Your task to perform on an android device: Clear the shopping cart on walmart.com. Search for acer predator on walmart.com, select the first entry, and add it to the cart. Image 0: 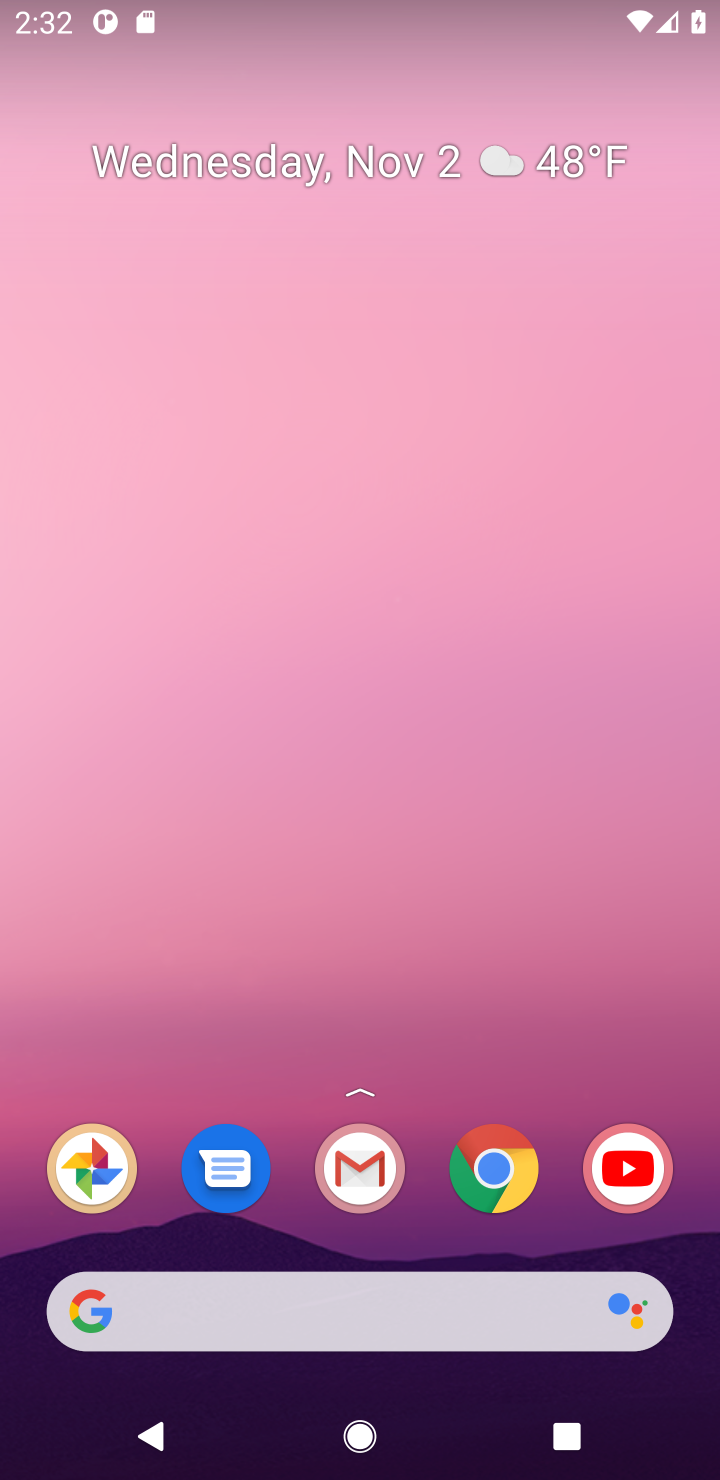
Step 0: click (437, 1319)
Your task to perform on an android device: Clear the shopping cart on walmart.com. Search for acer predator on walmart.com, select the first entry, and add it to the cart. Image 1: 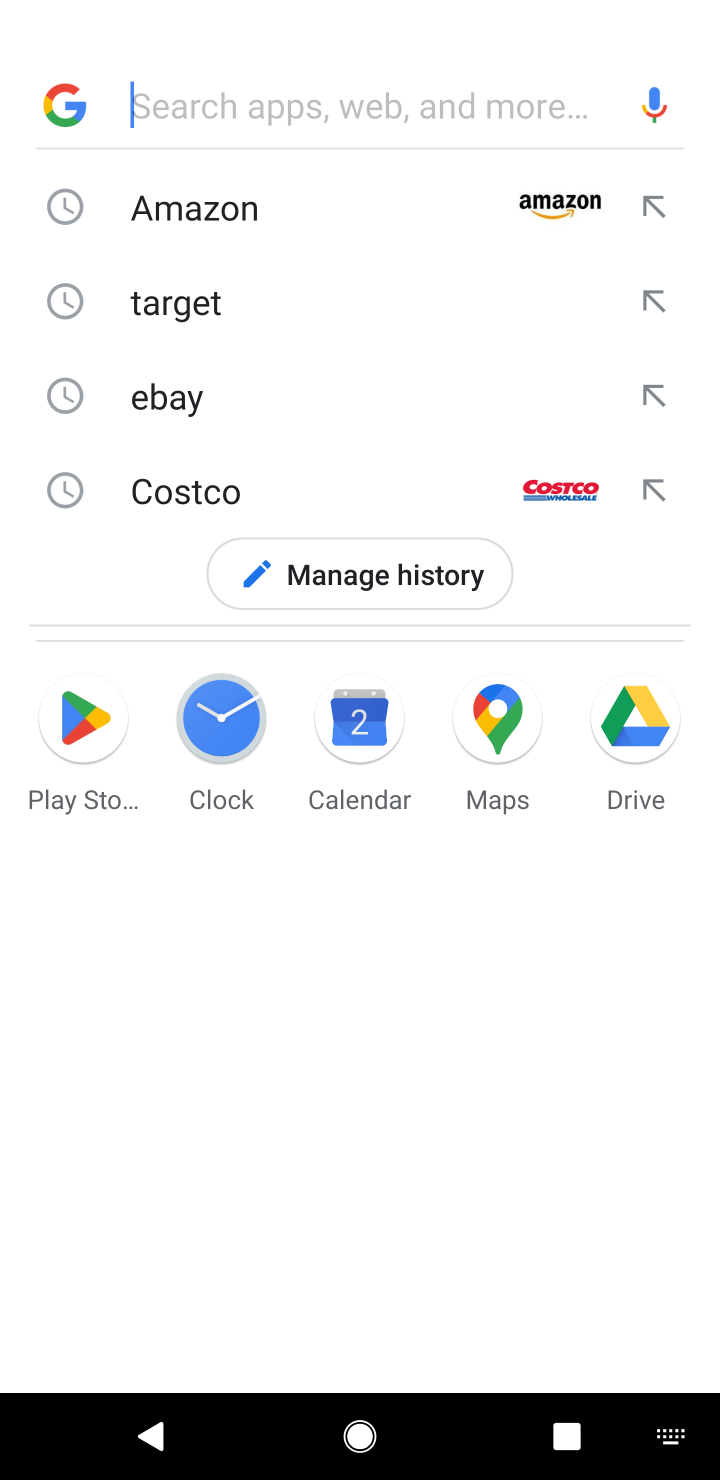
Step 1: type "walmart.com"
Your task to perform on an android device: Clear the shopping cart on walmart.com. Search for acer predator on walmart.com, select the first entry, and add it to the cart. Image 2: 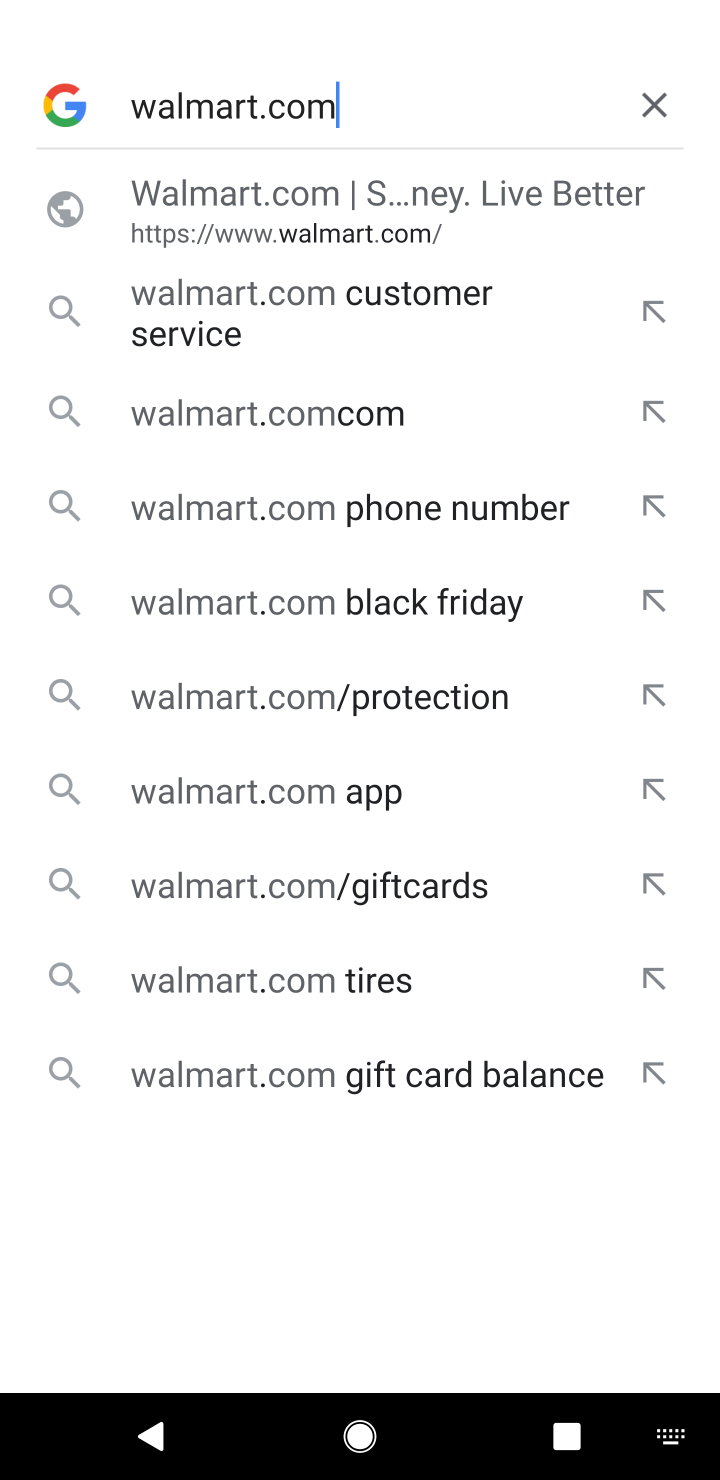
Step 2: click (379, 205)
Your task to perform on an android device: Clear the shopping cart on walmart.com. Search for acer predator on walmart.com, select the first entry, and add it to the cart. Image 3: 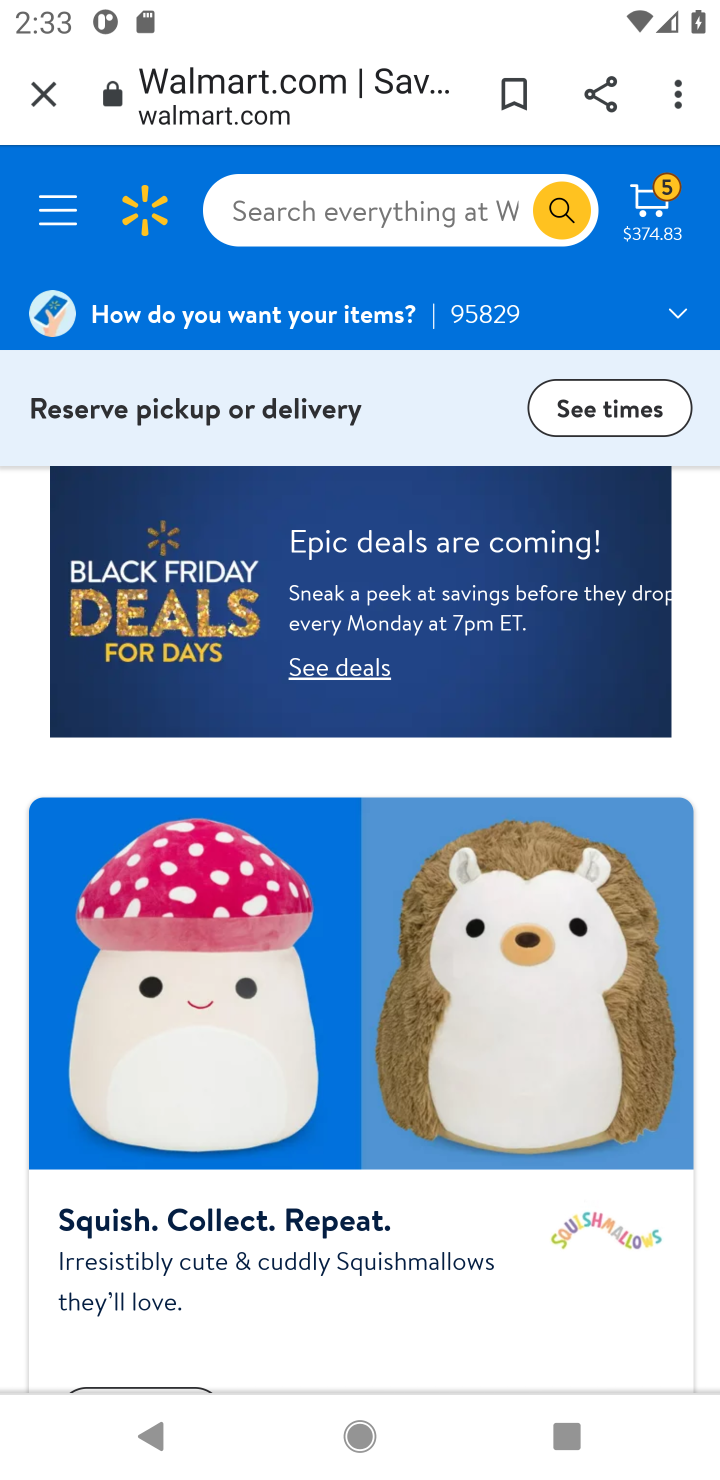
Step 3: click (653, 201)
Your task to perform on an android device: Clear the shopping cart on walmart.com. Search for acer predator on walmart.com, select the first entry, and add it to the cart. Image 4: 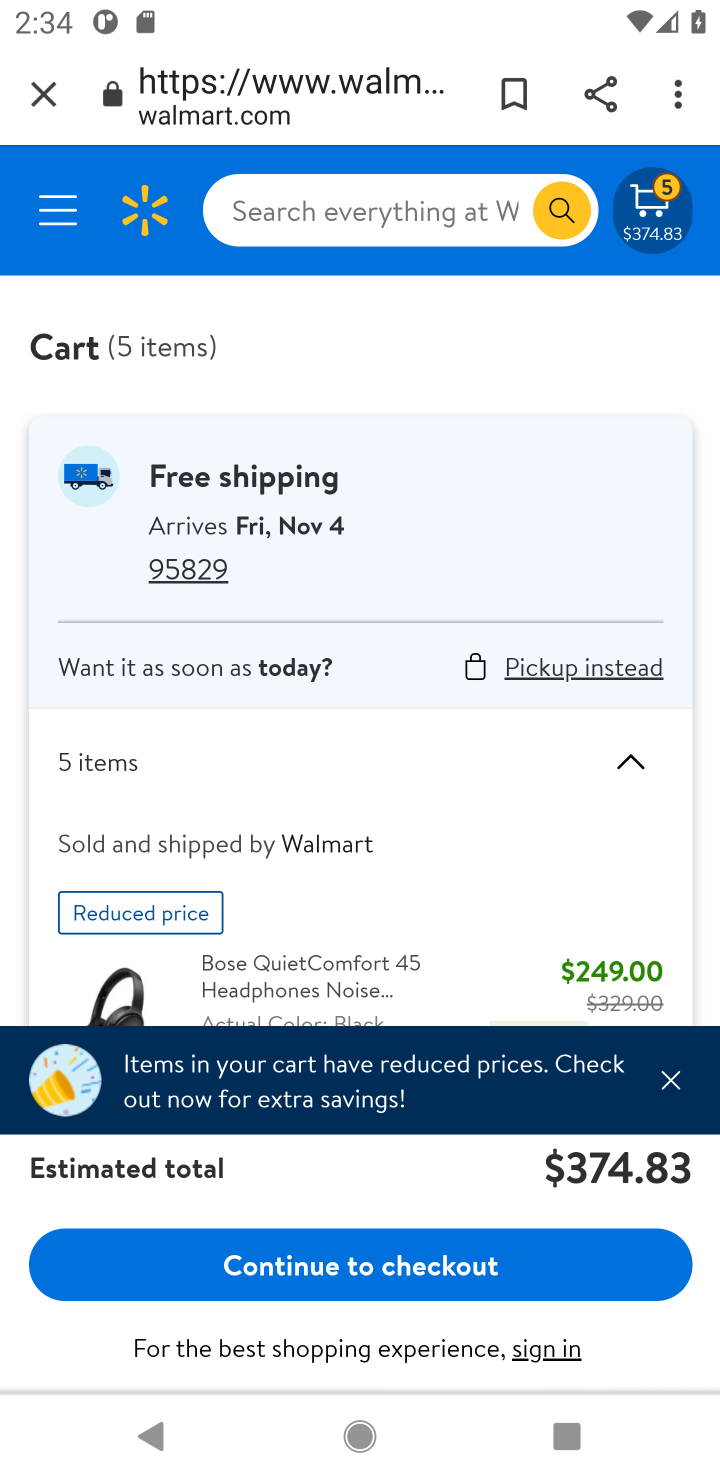
Step 4: click (673, 1087)
Your task to perform on an android device: Clear the shopping cart on walmart.com. Search for acer predator on walmart.com, select the first entry, and add it to the cart. Image 5: 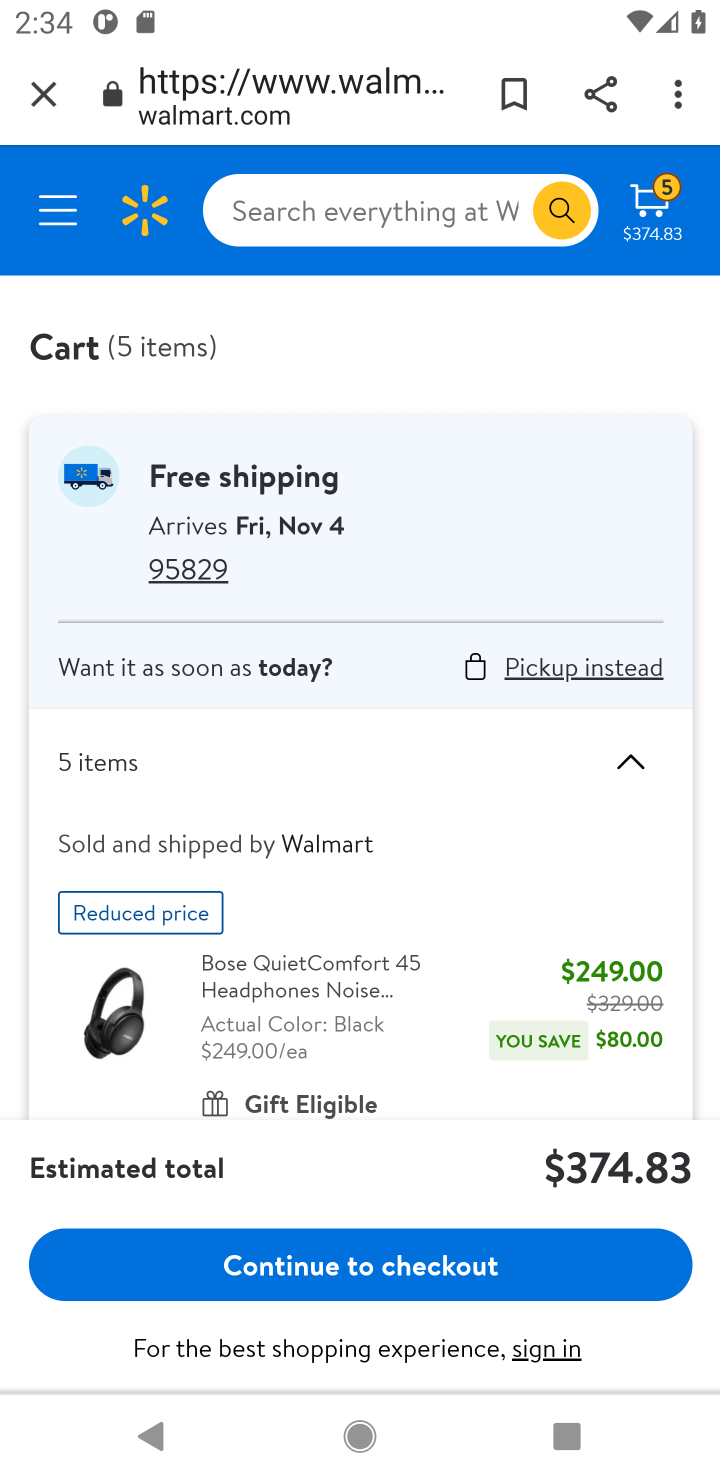
Step 5: drag from (255, 1068) to (290, 744)
Your task to perform on an android device: Clear the shopping cart on walmart.com. Search for acer predator on walmart.com, select the first entry, and add it to the cart. Image 6: 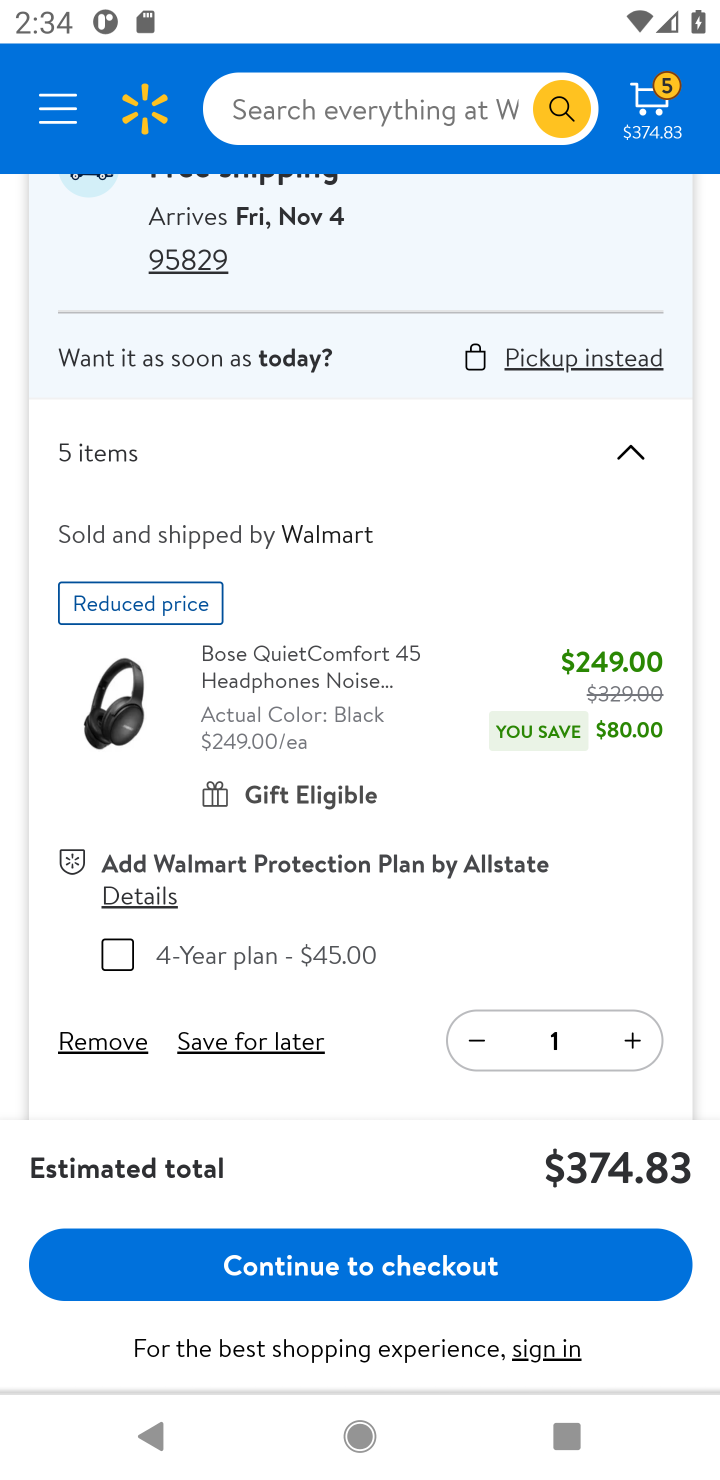
Step 6: click (91, 1051)
Your task to perform on an android device: Clear the shopping cart on walmart.com. Search for acer predator on walmart.com, select the first entry, and add it to the cart. Image 7: 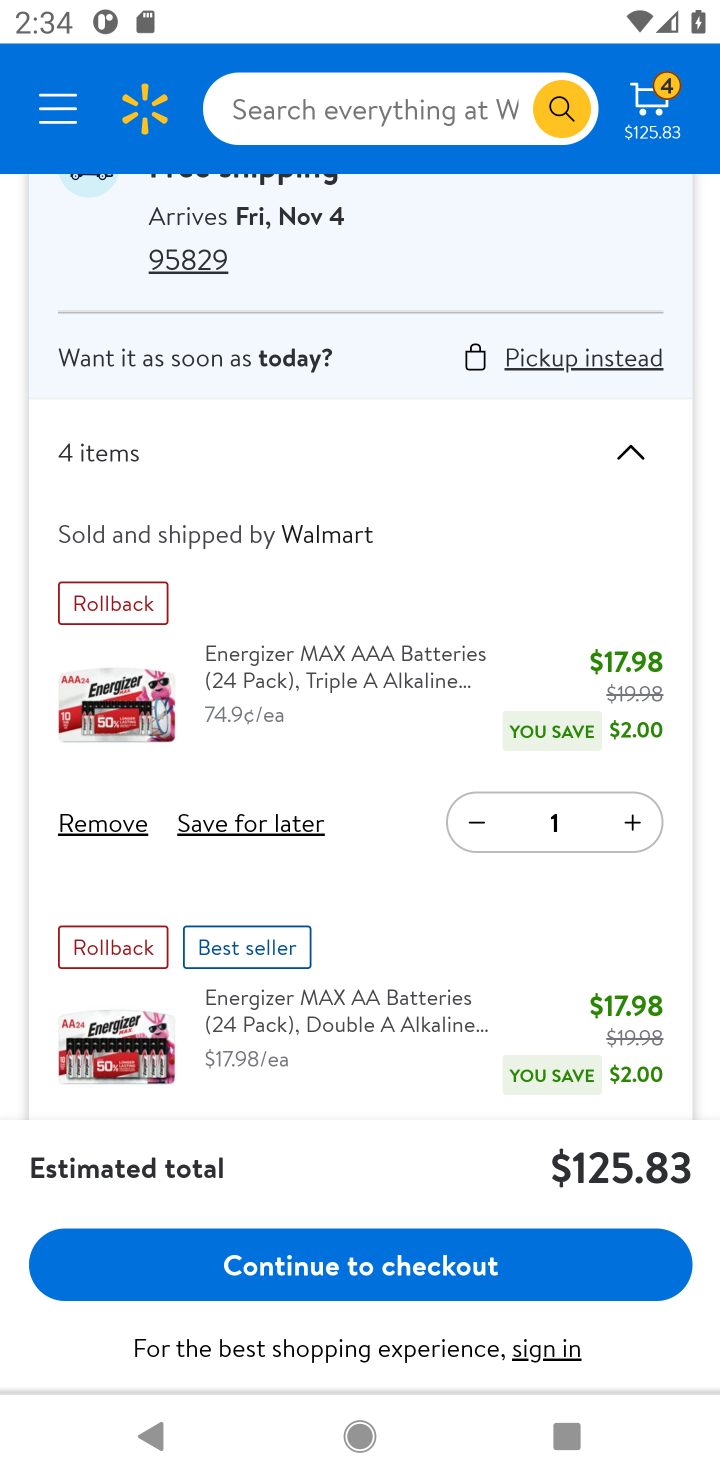
Step 7: click (117, 824)
Your task to perform on an android device: Clear the shopping cart on walmart.com. Search for acer predator on walmart.com, select the first entry, and add it to the cart. Image 8: 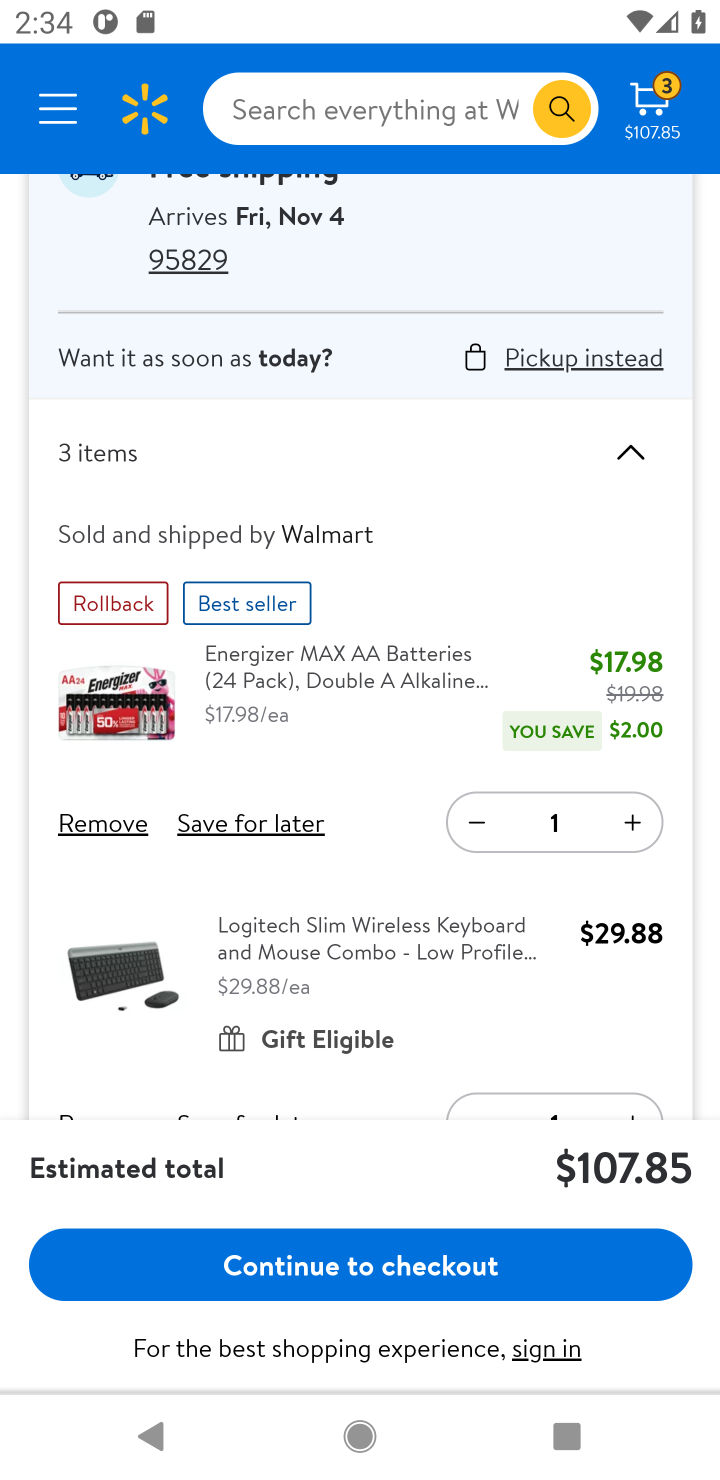
Step 8: click (117, 824)
Your task to perform on an android device: Clear the shopping cart on walmart.com. Search for acer predator on walmart.com, select the first entry, and add it to the cart. Image 9: 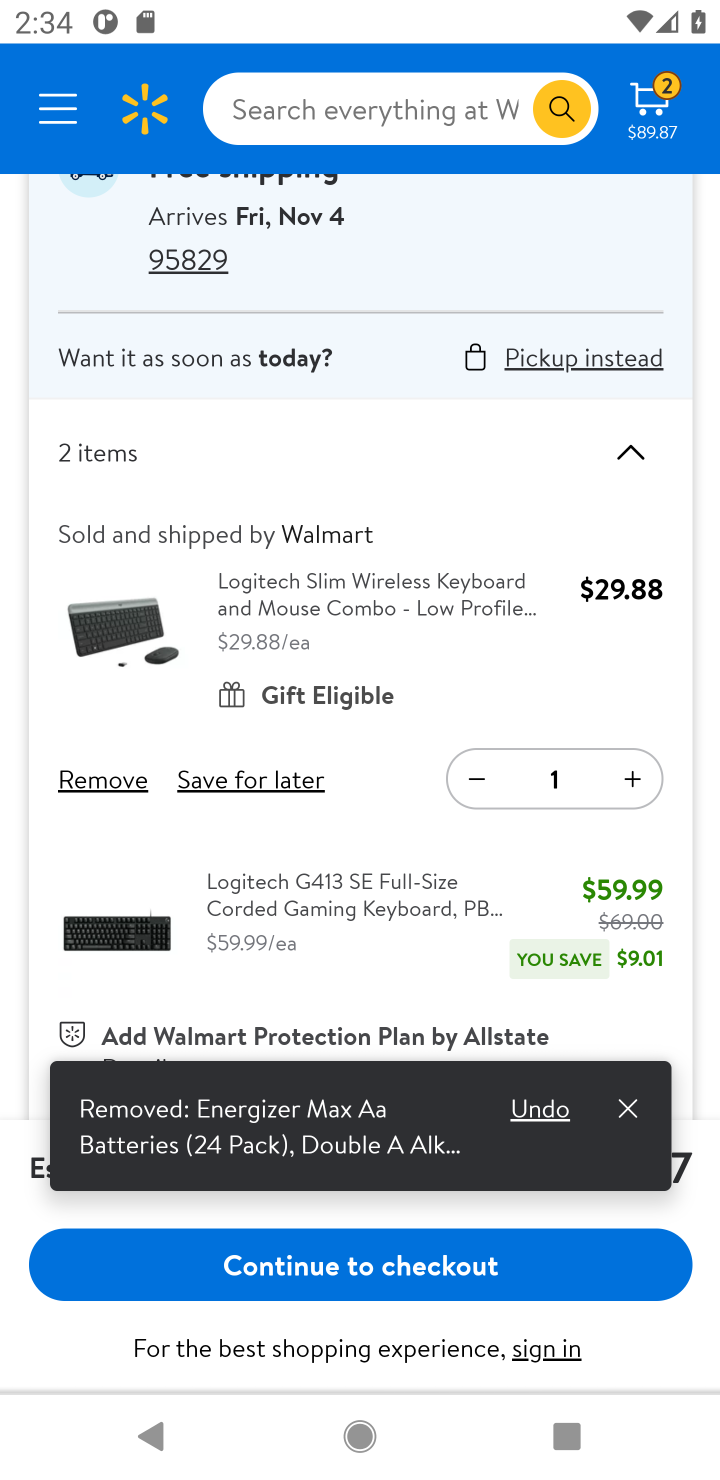
Step 9: click (97, 726)
Your task to perform on an android device: Clear the shopping cart on walmart.com. Search for acer predator on walmart.com, select the first entry, and add it to the cart. Image 10: 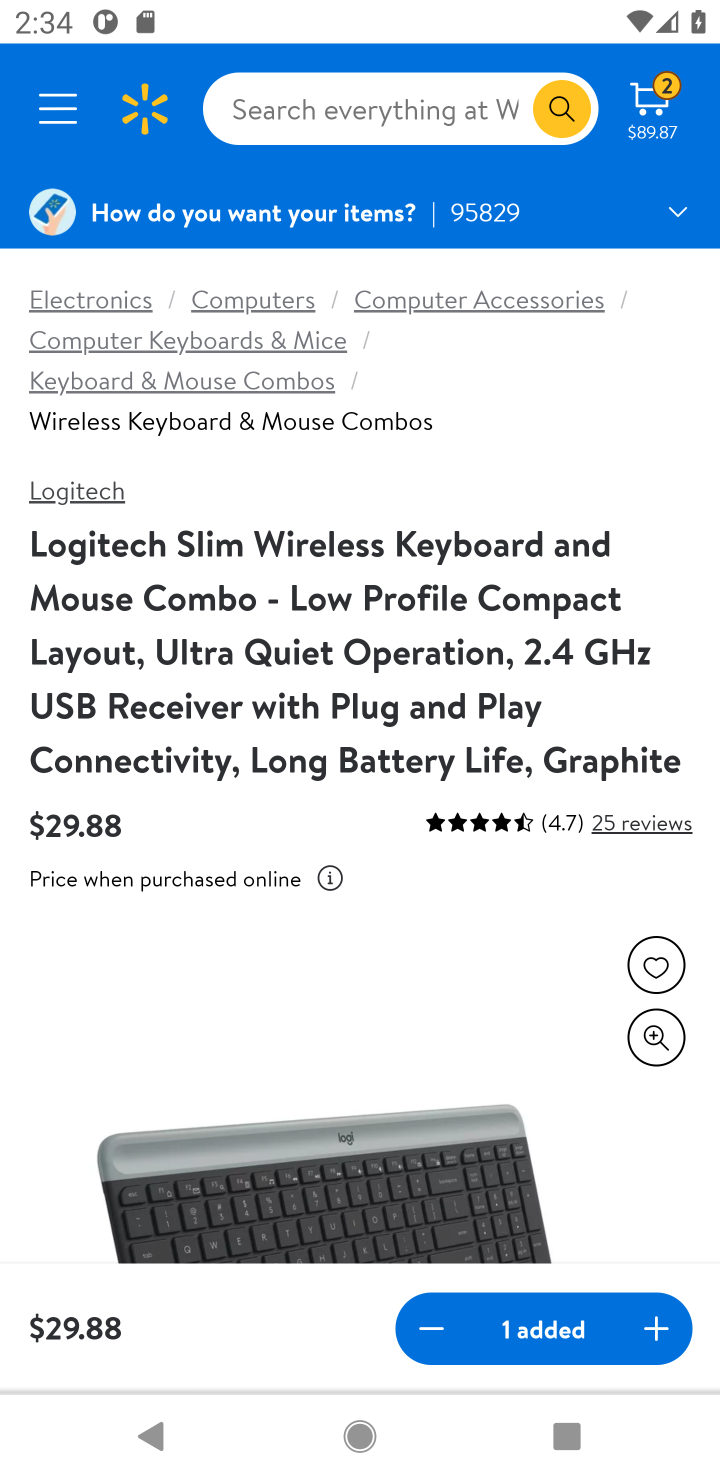
Step 10: drag from (447, 995) to (446, 587)
Your task to perform on an android device: Clear the shopping cart on walmart.com. Search for acer predator on walmart.com, select the first entry, and add it to the cart. Image 11: 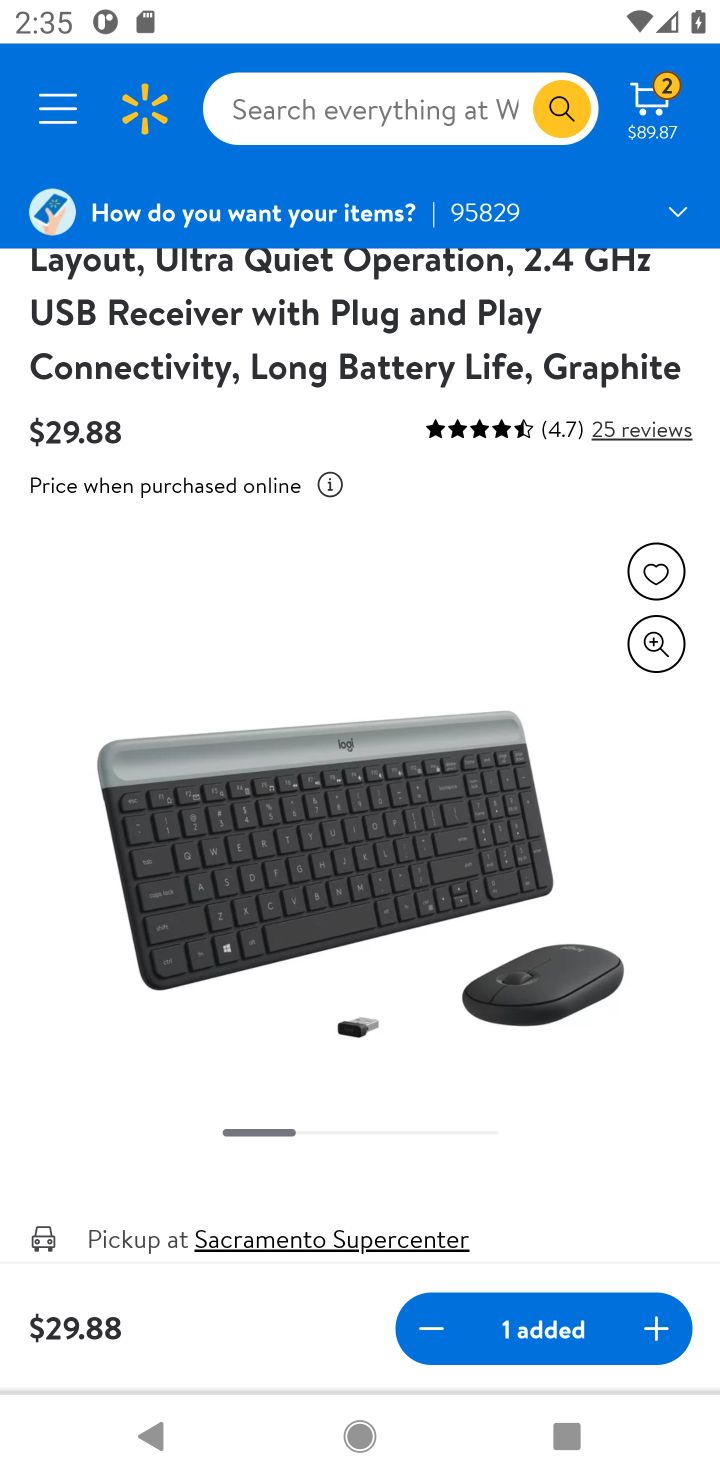
Step 11: click (386, 898)
Your task to perform on an android device: Clear the shopping cart on walmart.com. Search for acer predator on walmart.com, select the first entry, and add it to the cart. Image 12: 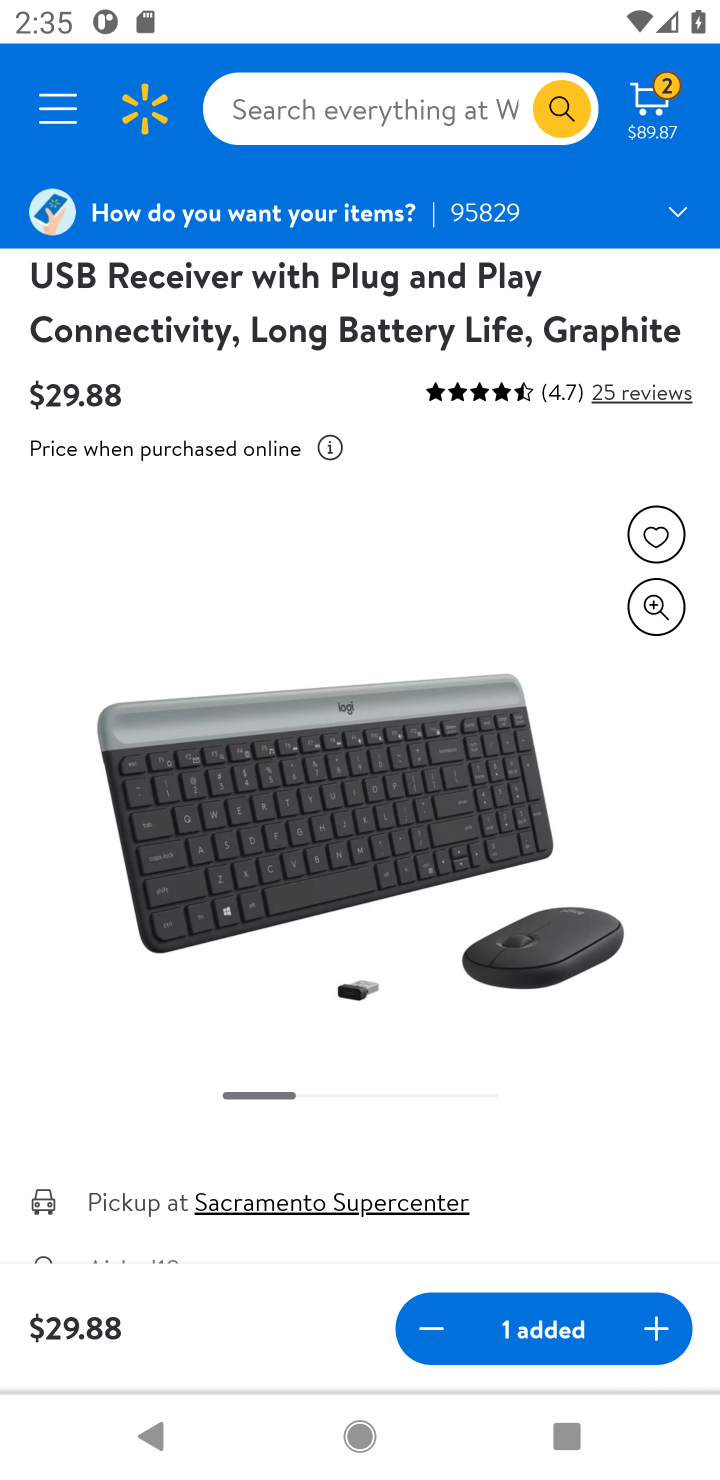
Step 12: click (660, 130)
Your task to perform on an android device: Clear the shopping cart on walmart.com. Search for acer predator on walmart.com, select the first entry, and add it to the cart. Image 13: 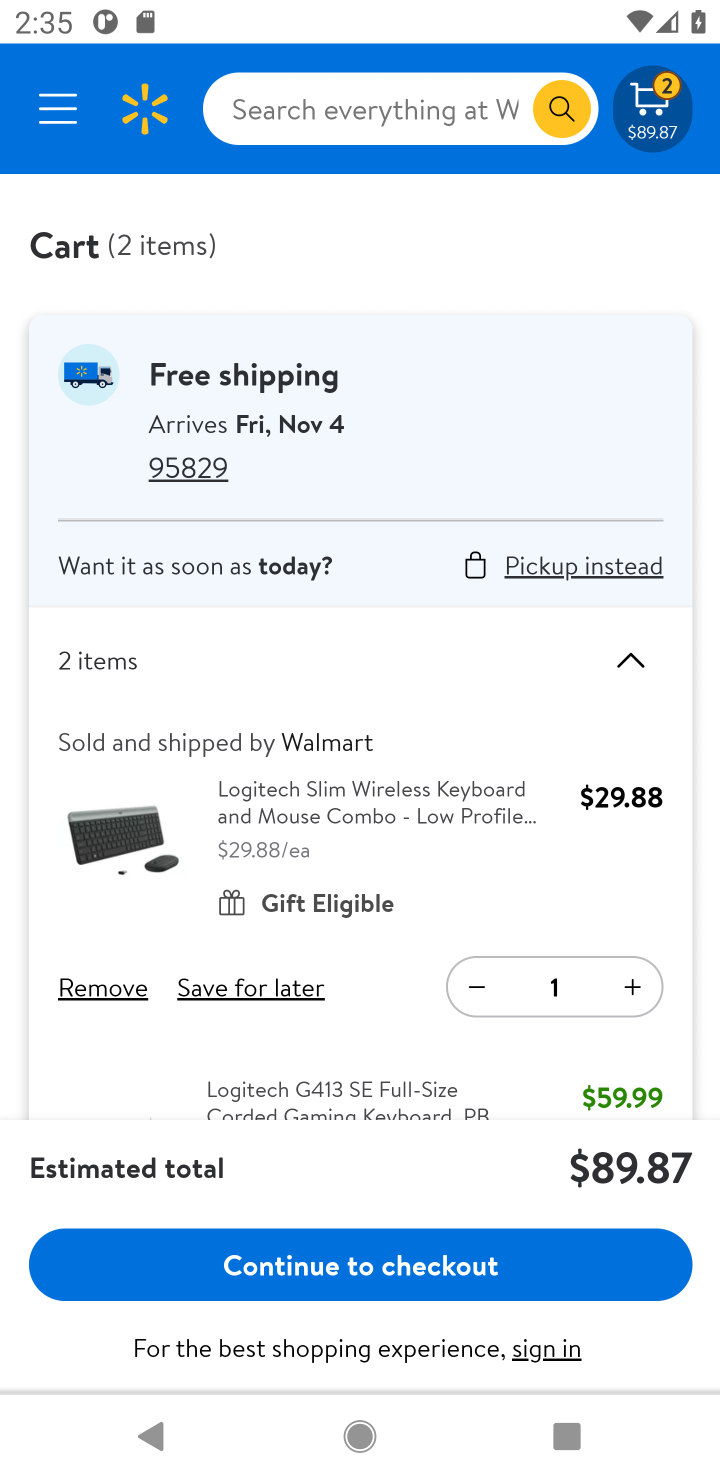
Step 13: click (117, 989)
Your task to perform on an android device: Clear the shopping cart on walmart.com. Search for acer predator on walmart.com, select the first entry, and add it to the cart. Image 14: 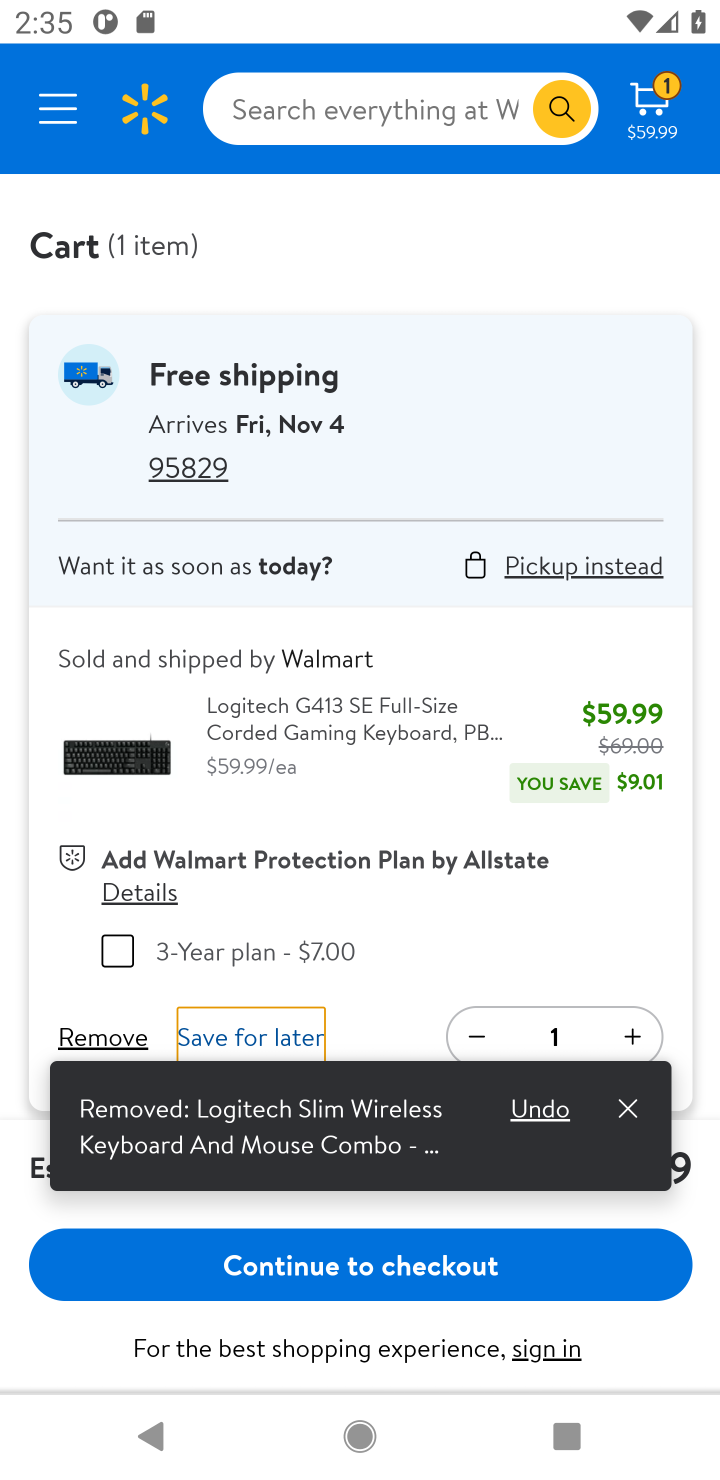
Step 14: click (68, 1040)
Your task to perform on an android device: Clear the shopping cart on walmart.com. Search for acer predator on walmart.com, select the first entry, and add it to the cart. Image 15: 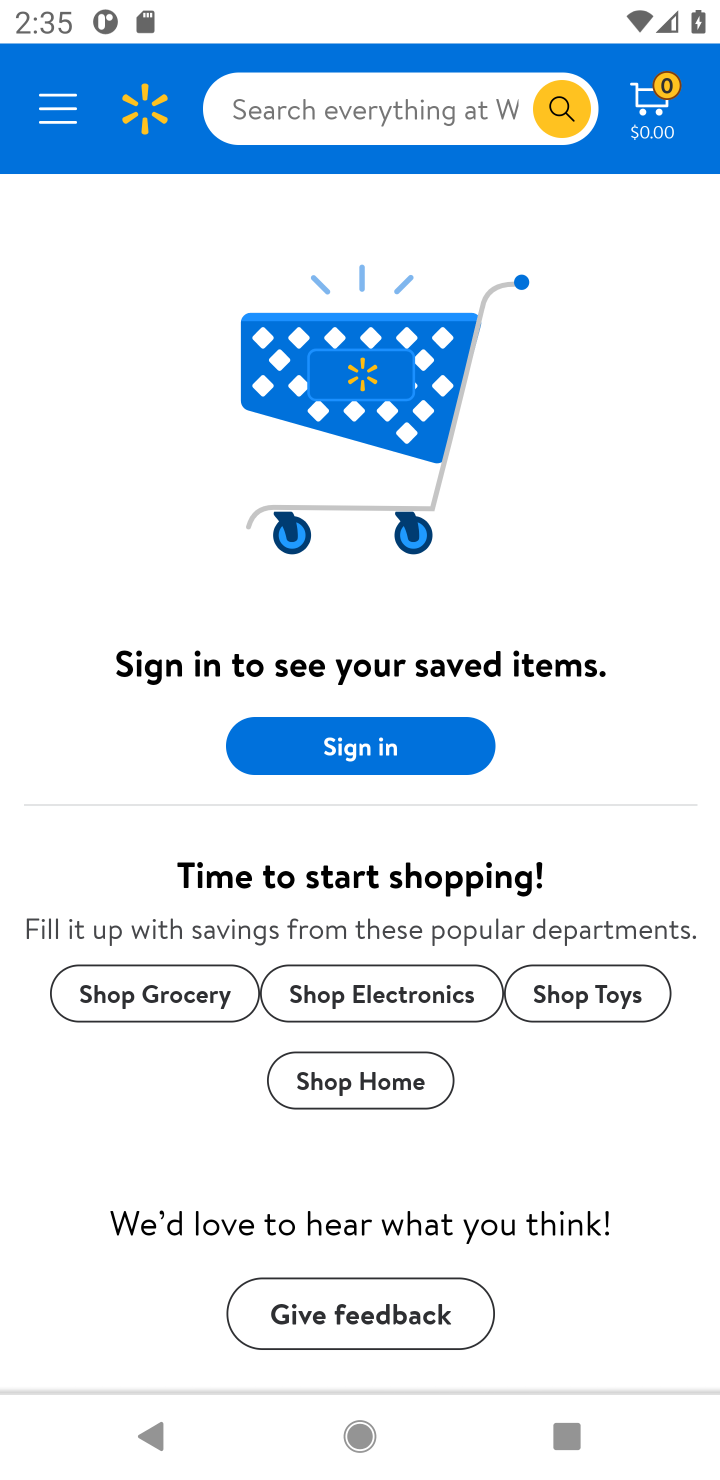
Step 15: click (439, 103)
Your task to perform on an android device: Clear the shopping cart on walmart.com. Search for acer predator on walmart.com, select the first entry, and add it to the cart. Image 16: 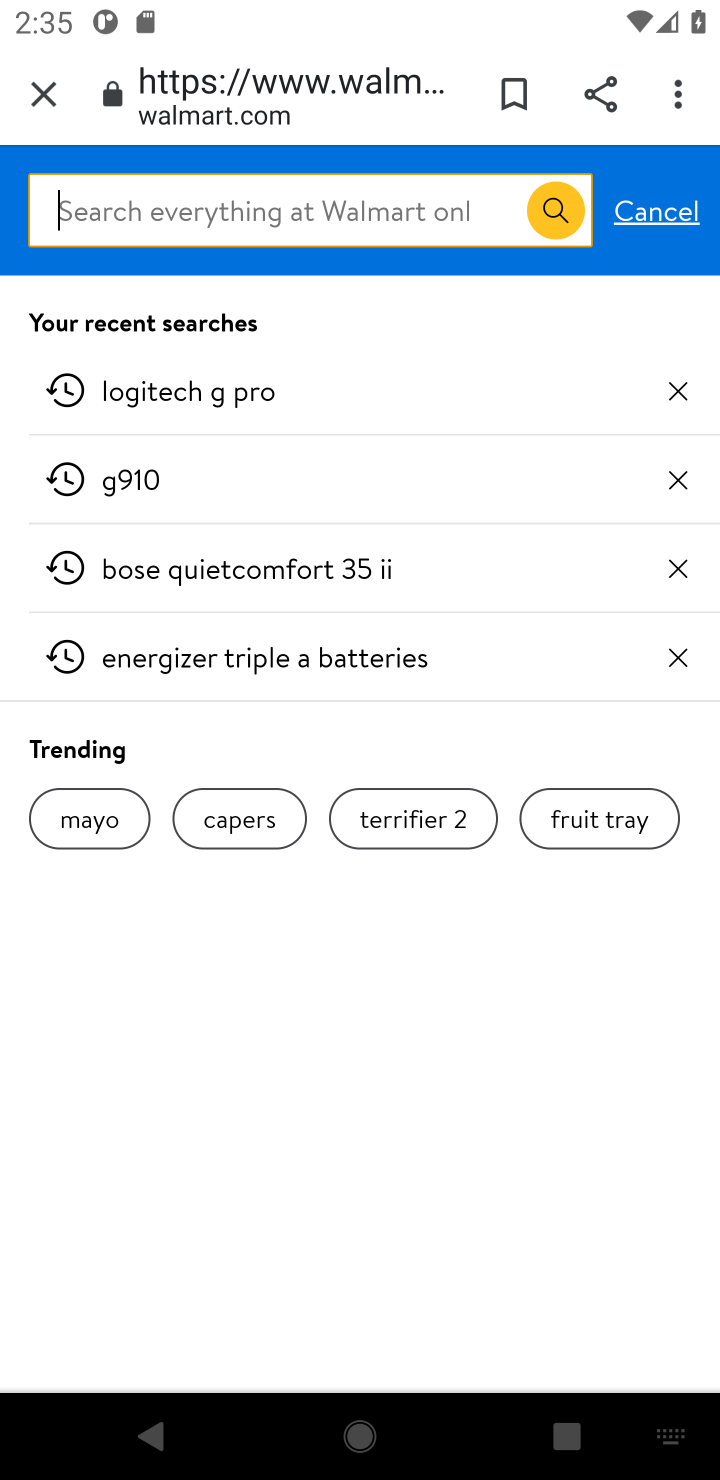
Step 16: type "acer predato"
Your task to perform on an android device: Clear the shopping cart on walmart.com. Search for acer predator on walmart.com, select the first entry, and add it to the cart. Image 17: 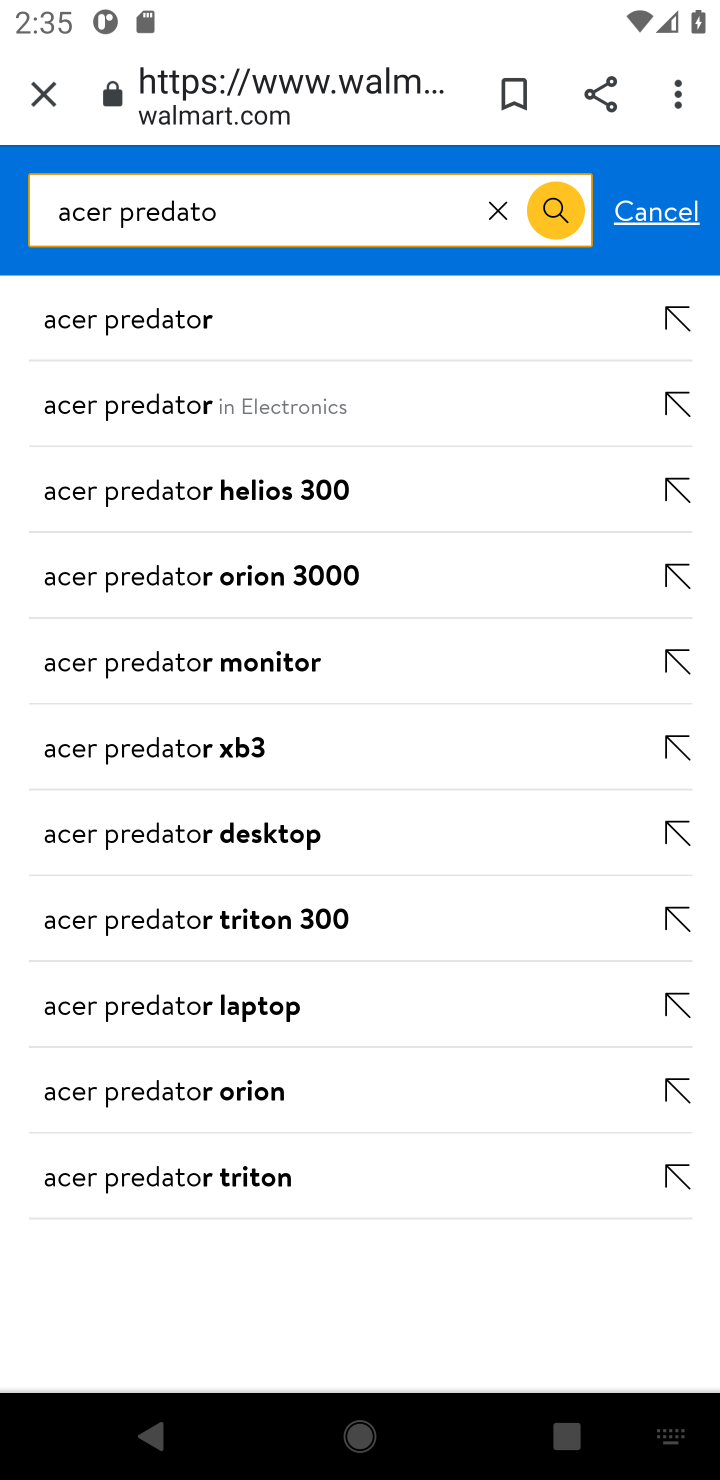
Step 17: click (121, 308)
Your task to perform on an android device: Clear the shopping cart on walmart.com. Search for acer predator on walmart.com, select the first entry, and add it to the cart. Image 18: 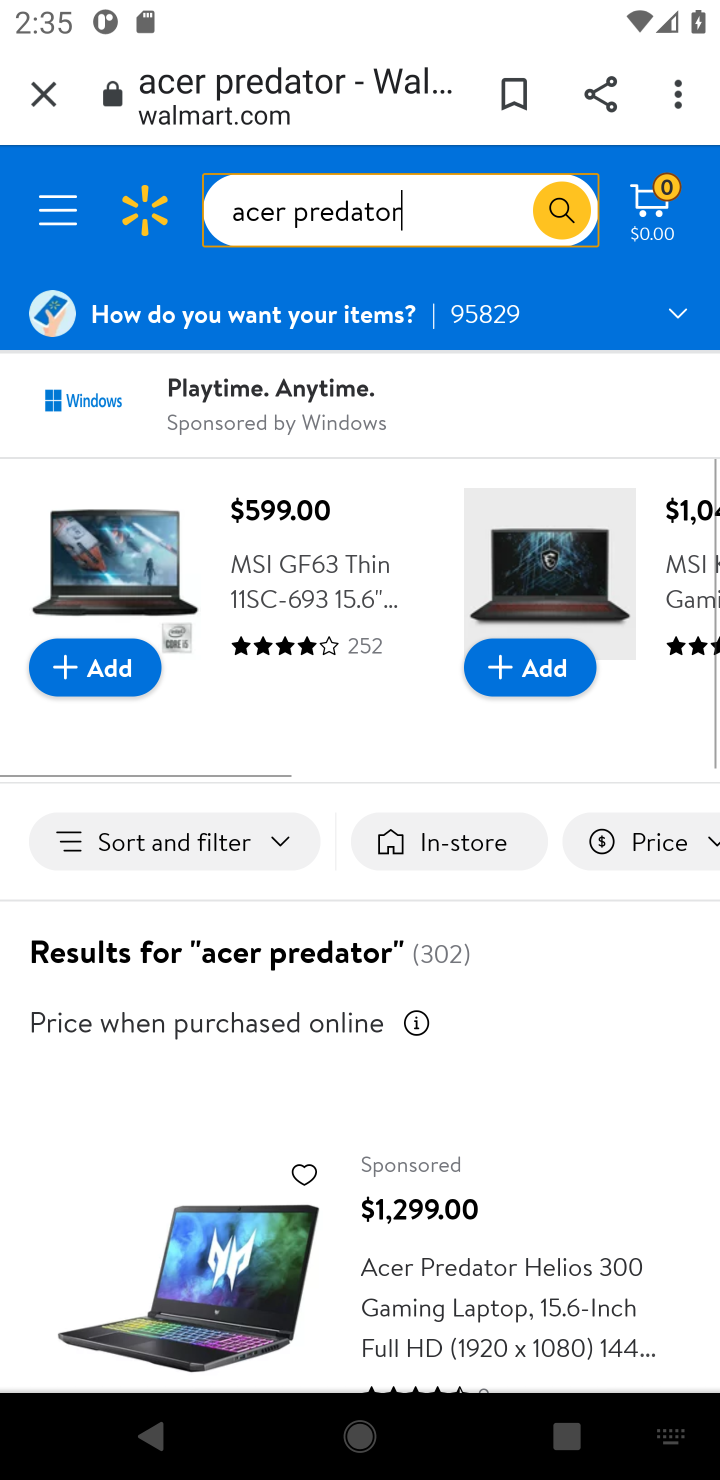
Step 18: click (72, 659)
Your task to perform on an android device: Clear the shopping cart on walmart.com. Search for acer predator on walmart.com, select the first entry, and add it to the cart. Image 19: 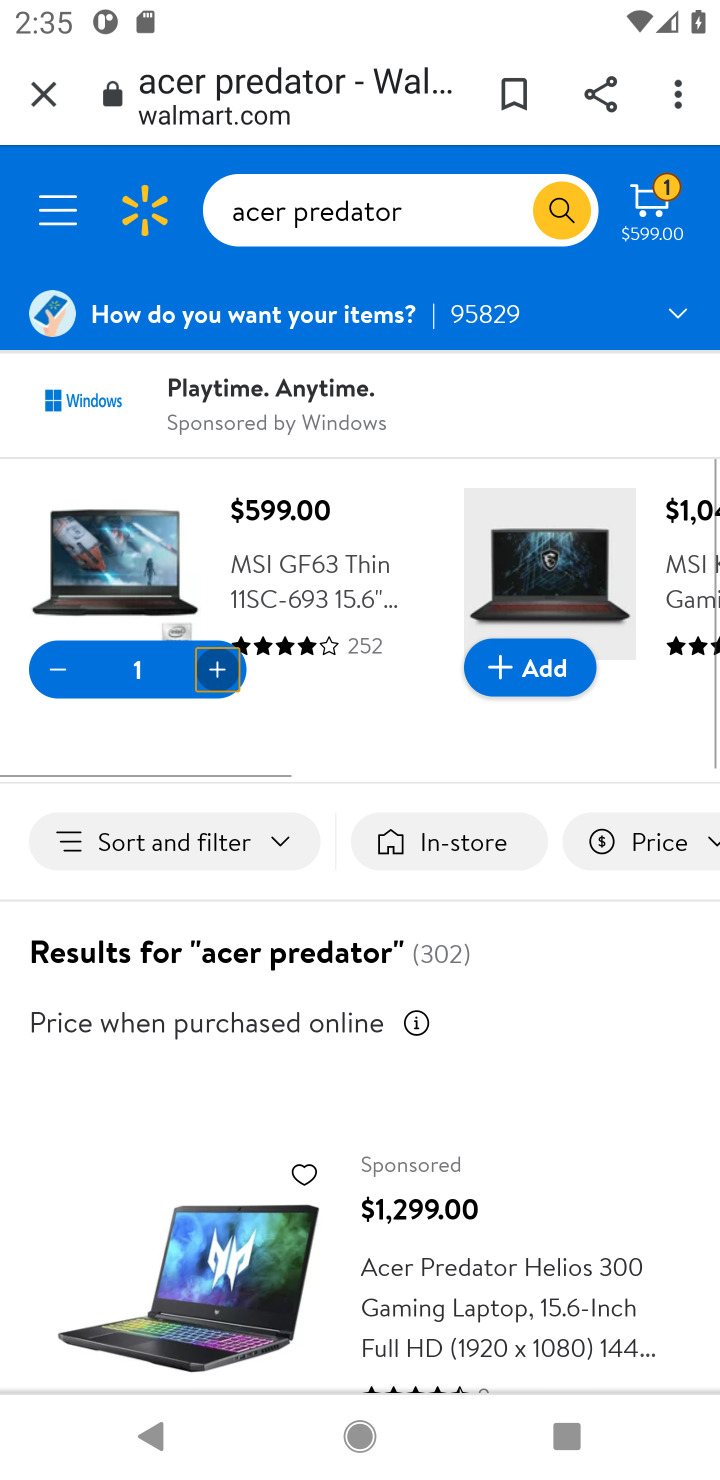
Step 19: click (648, 207)
Your task to perform on an android device: Clear the shopping cart on walmart.com. Search for acer predator on walmart.com, select the first entry, and add it to the cart. Image 20: 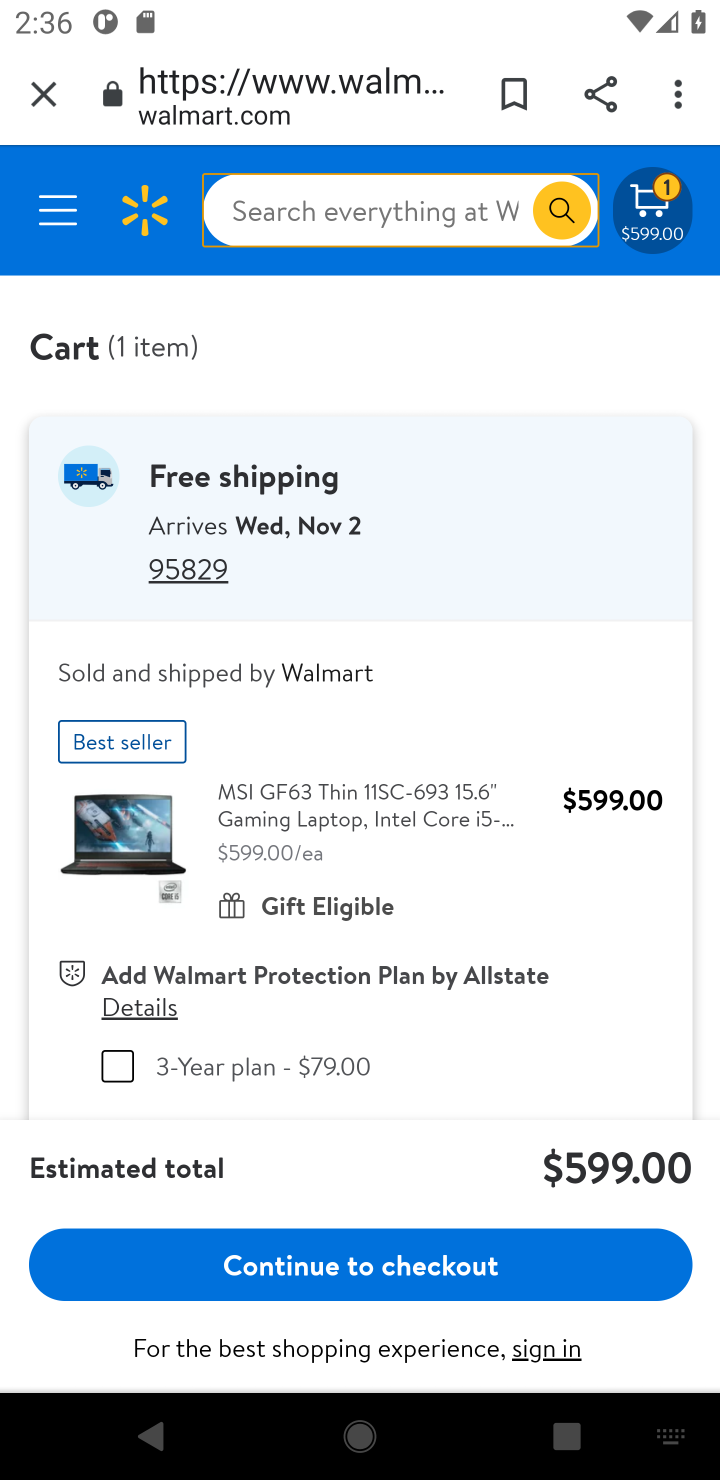
Step 20: drag from (255, 900) to (289, 656)
Your task to perform on an android device: Clear the shopping cart on walmart.com. Search for acer predator on walmart.com, select the first entry, and add it to the cart. Image 21: 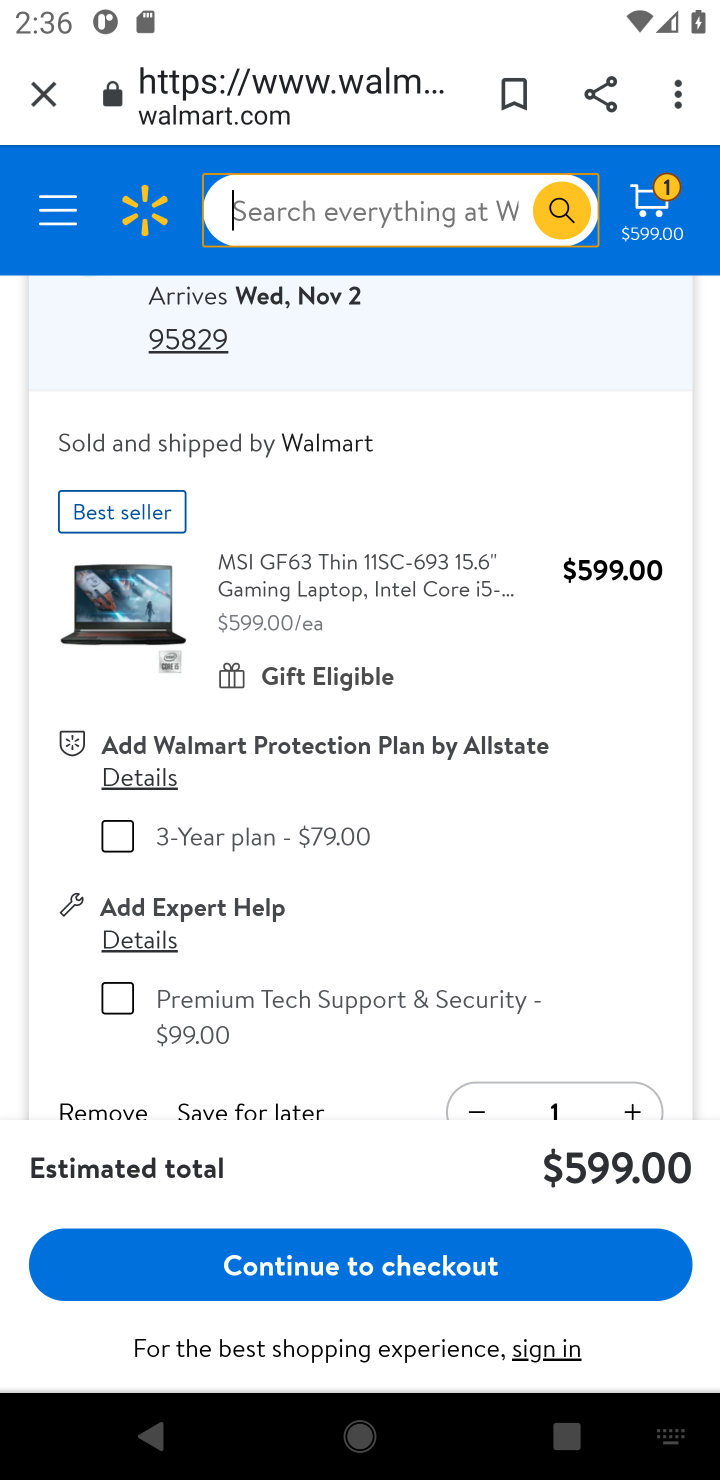
Step 21: click (102, 1116)
Your task to perform on an android device: Clear the shopping cart on walmart.com. Search for acer predator on walmart.com, select the first entry, and add it to the cart. Image 22: 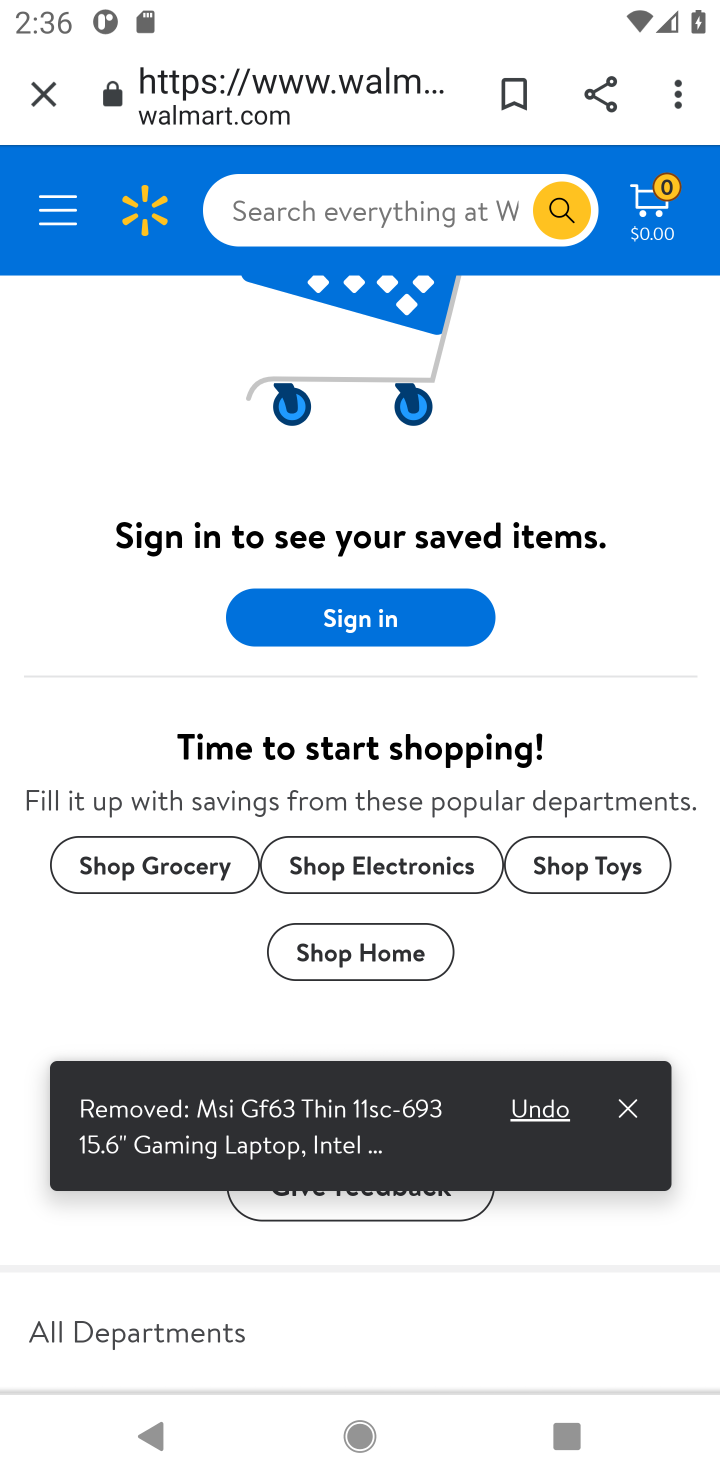
Step 22: click (356, 210)
Your task to perform on an android device: Clear the shopping cart on walmart.com. Search for acer predator on walmart.com, select the first entry, and add it to the cart. Image 23: 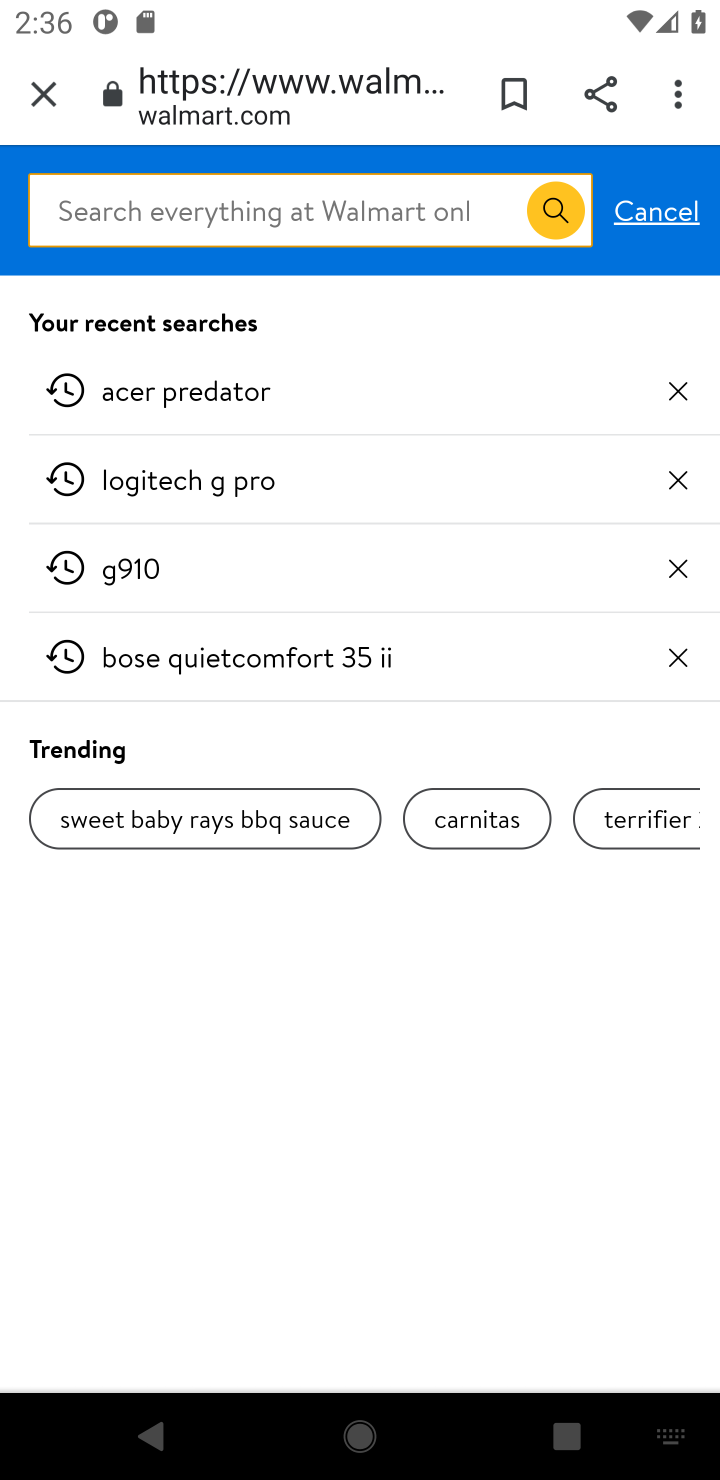
Step 23: type "acer predato"
Your task to perform on an android device: Clear the shopping cart on walmart.com. Search for acer predator on walmart.com, select the first entry, and add it to the cart. Image 24: 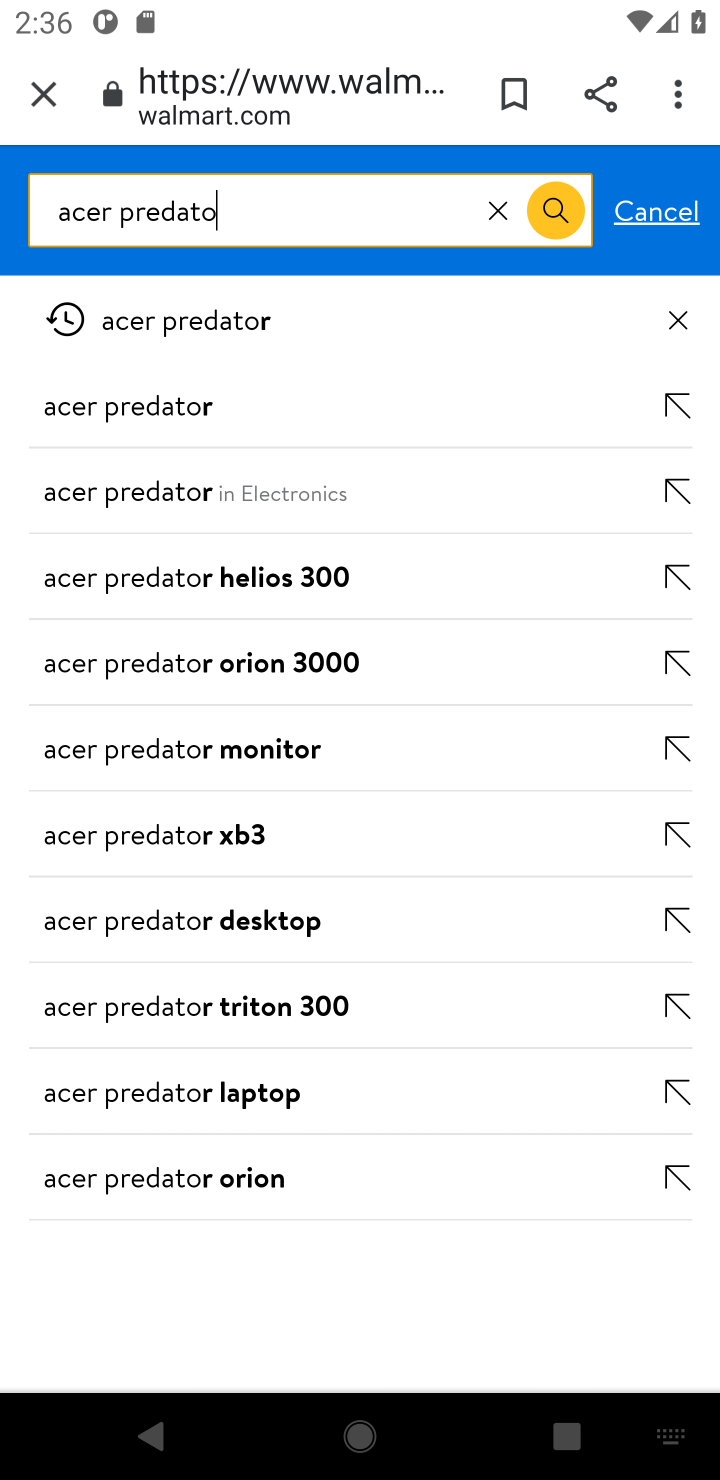
Step 24: click (191, 318)
Your task to perform on an android device: Clear the shopping cart on walmart.com. Search for acer predator on walmart.com, select the first entry, and add it to the cart. Image 25: 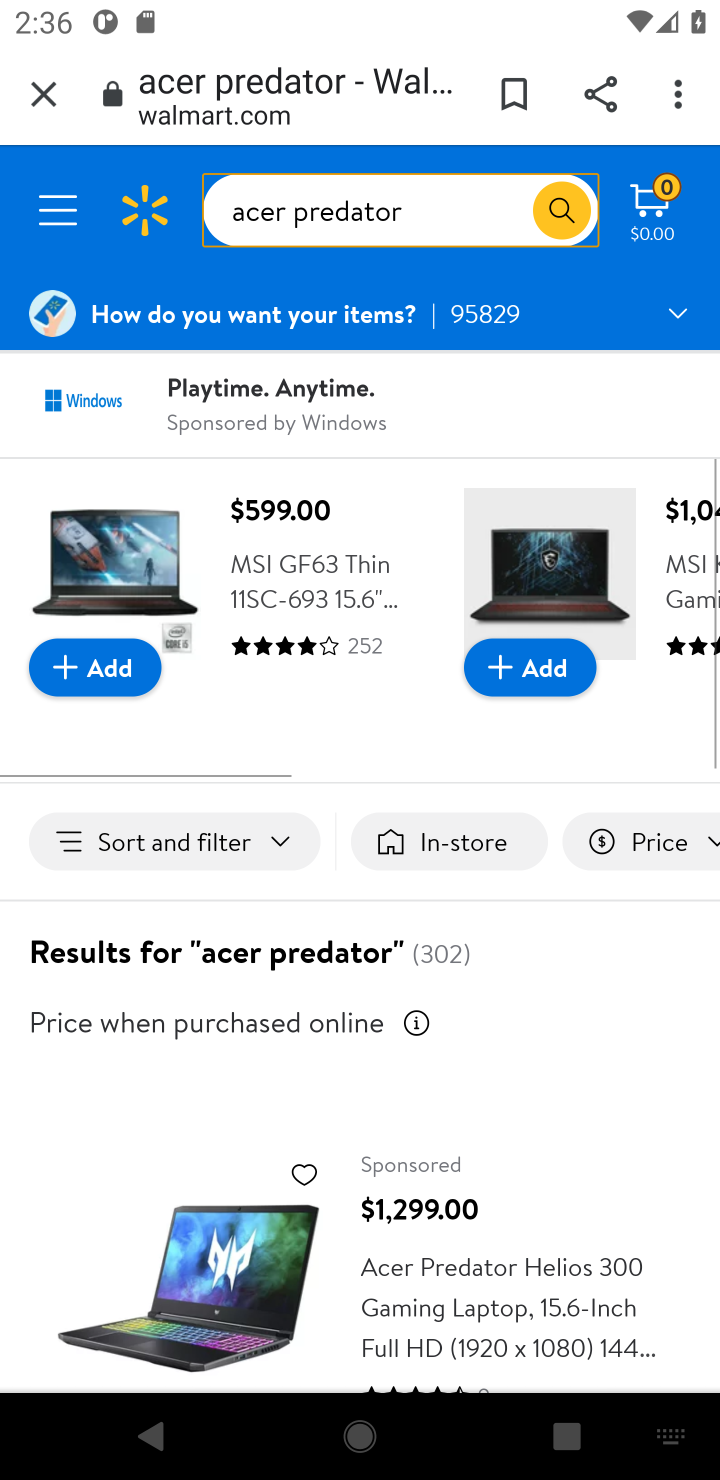
Step 25: click (417, 1266)
Your task to perform on an android device: Clear the shopping cart on walmart.com. Search for acer predator on walmart.com, select the first entry, and add it to the cart. Image 26: 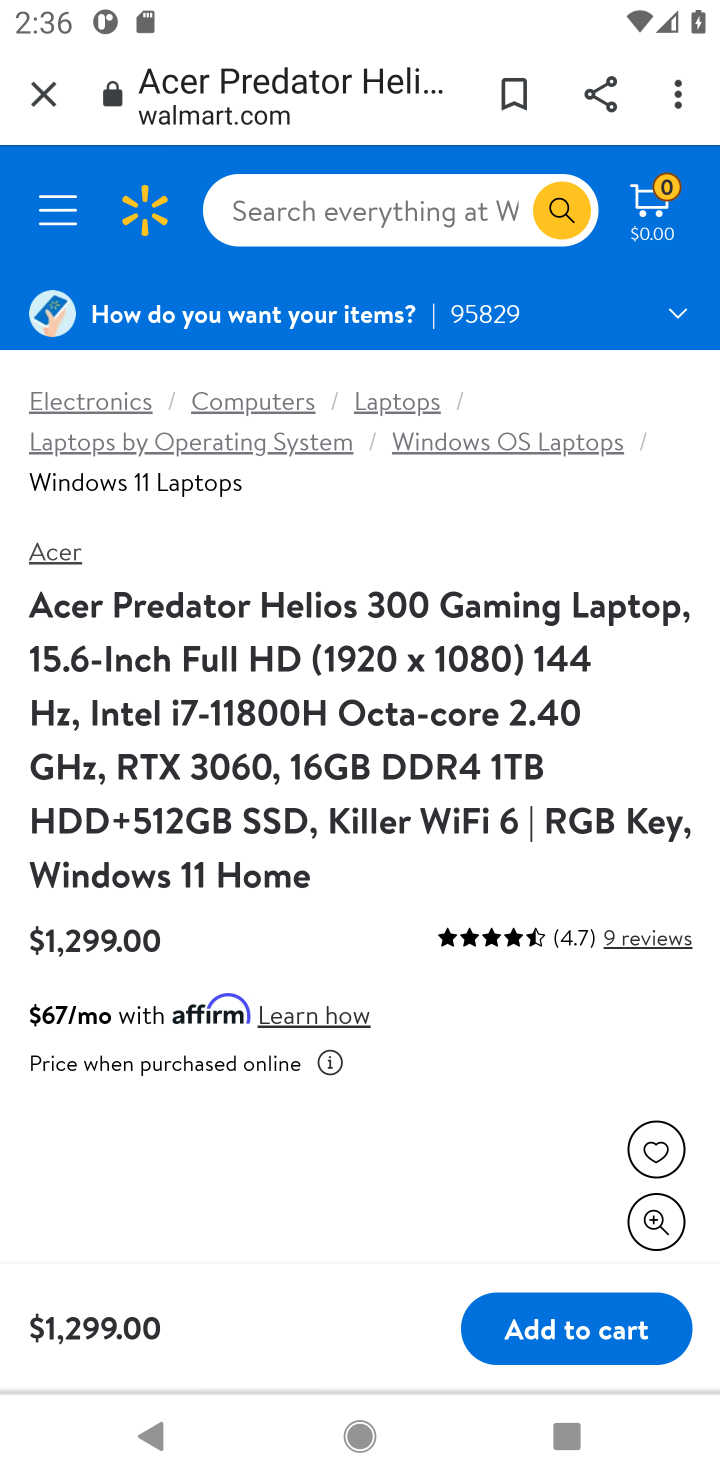
Step 26: click (560, 1338)
Your task to perform on an android device: Clear the shopping cart on walmart.com. Search for acer predator on walmart.com, select the first entry, and add it to the cart. Image 27: 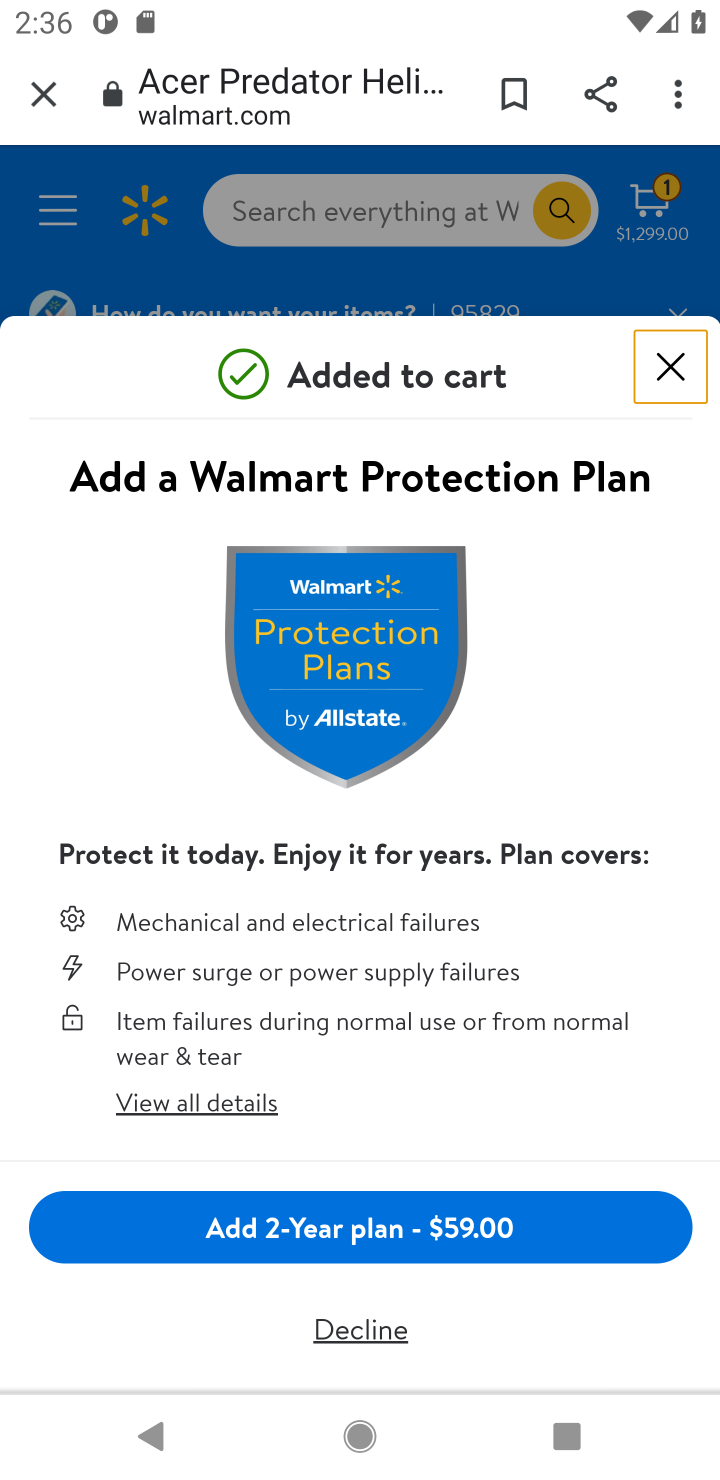
Step 27: click (358, 1330)
Your task to perform on an android device: Clear the shopping cart on walmart.com. Search for acer predator on walmart.com, select the first entry, and add it to the cart. Image 28: 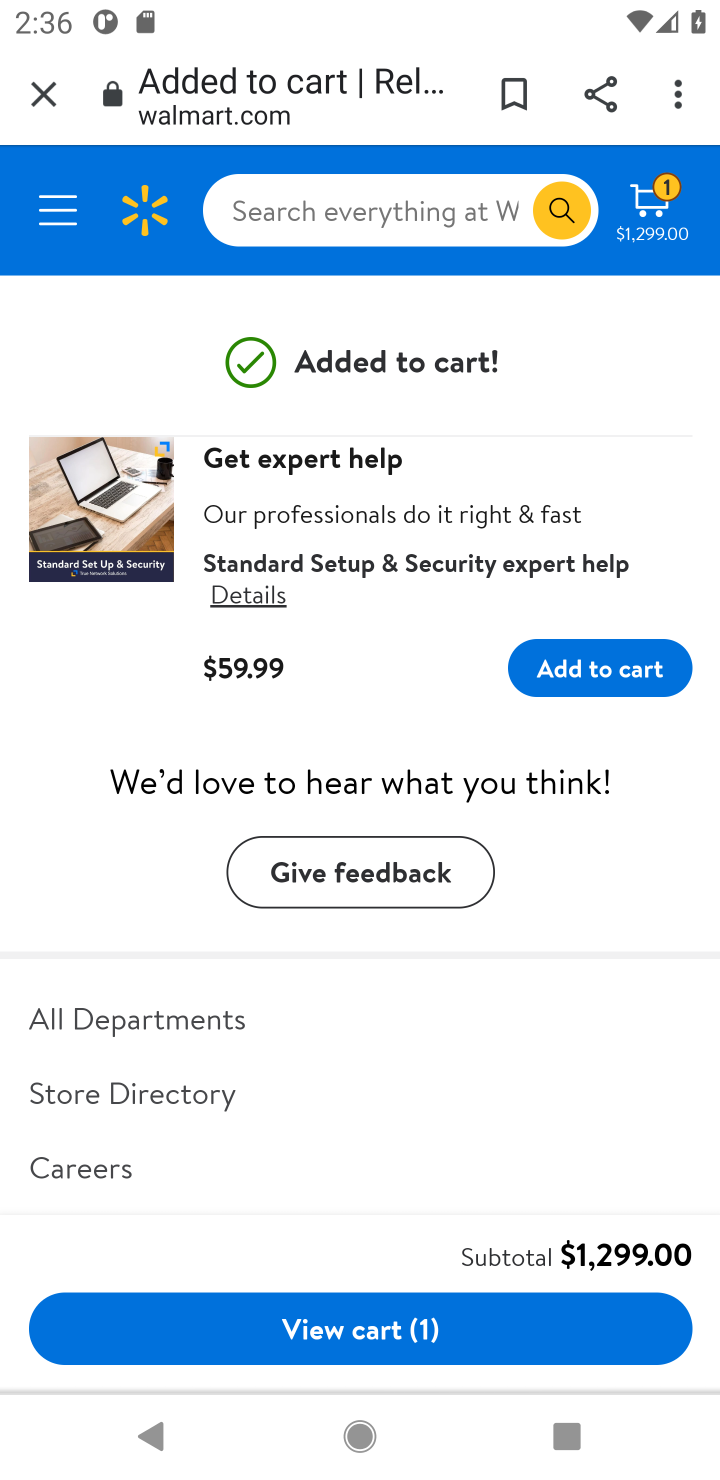
Step 28: task complete